Your task to perform on an android device: Add "bose soundlink mini" to the cart on target.com Image 0: 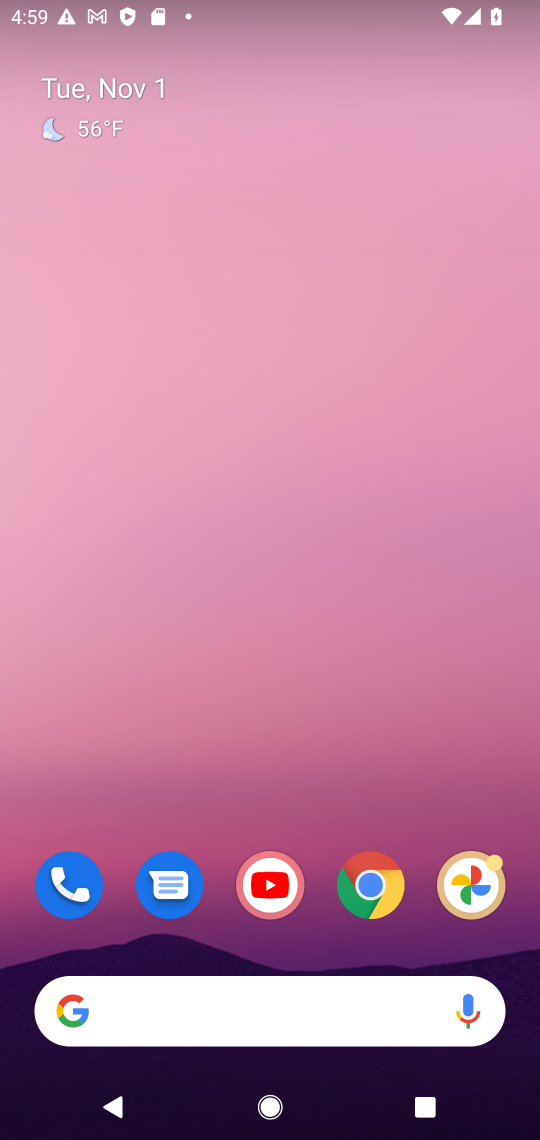
Step 0: click (369, 883)
Your task to perform on an android device: Add "bose soundlink mini" to the cart on target.com Image 1: 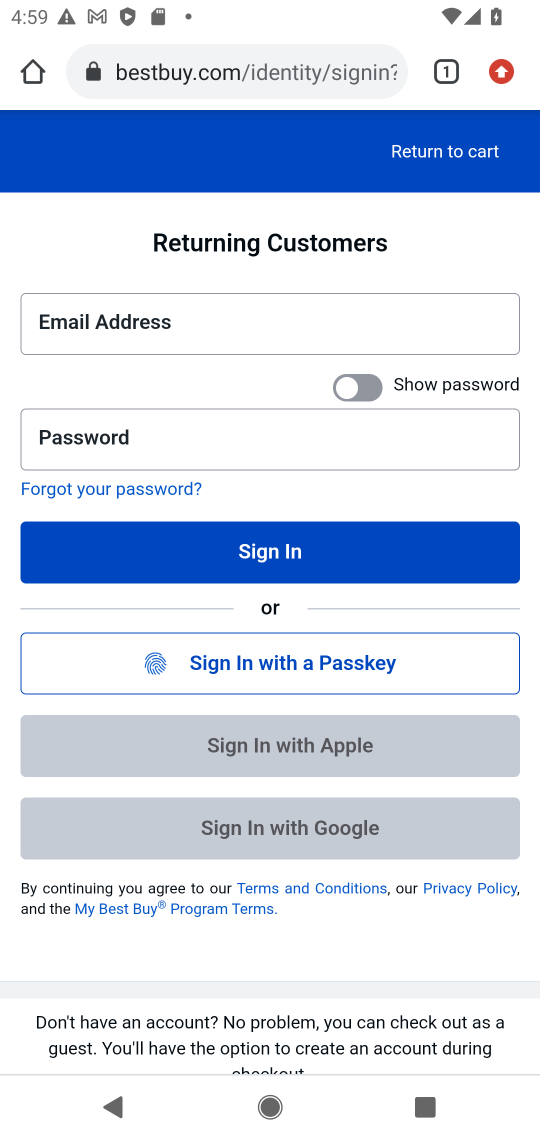
Step 1: click (219, 50)
Your task to perform on an android device: Add "bose soundlink mini" to the cart on target.com Image 2: 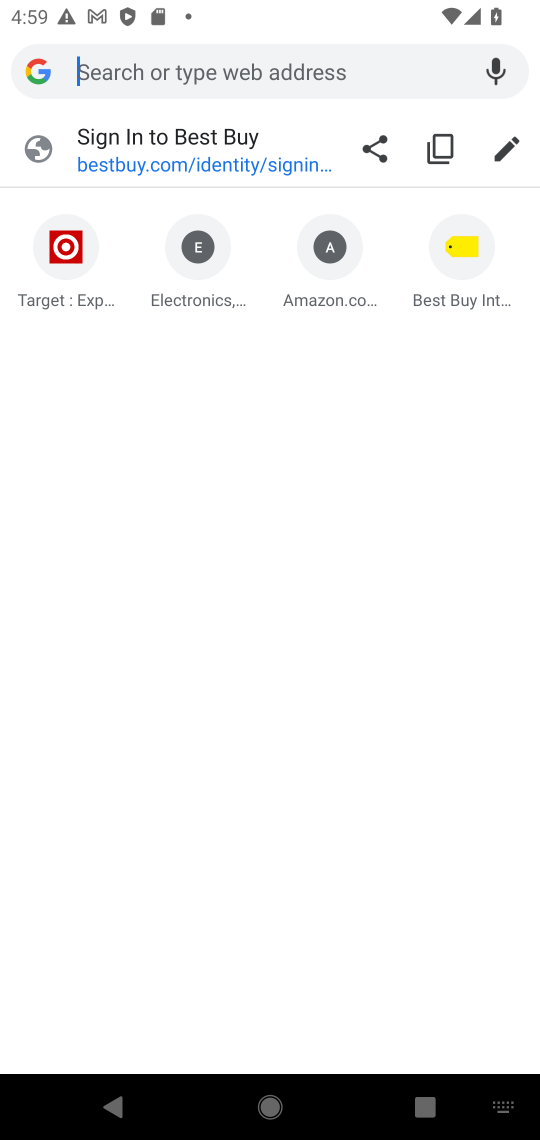
Step 2: click (215, 47)
Your task to perform on an android device: Add "bose soundlink mini" to the cart on target.com Image 3: 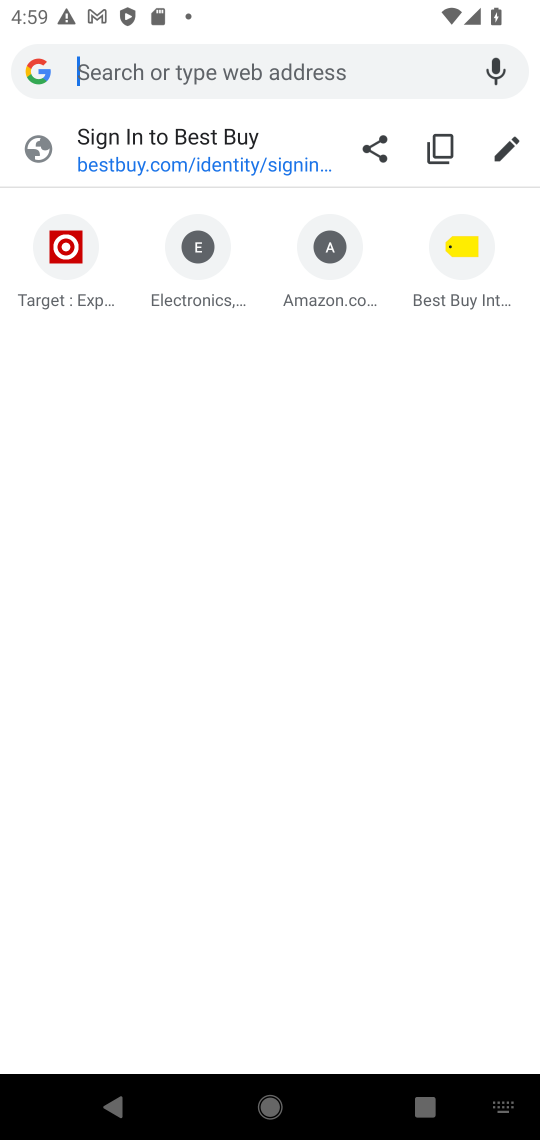
Step 3: type "target.com"
Your task to perform on an android device: Add "bose soundlink mini" to the cart on target.com Image 4: 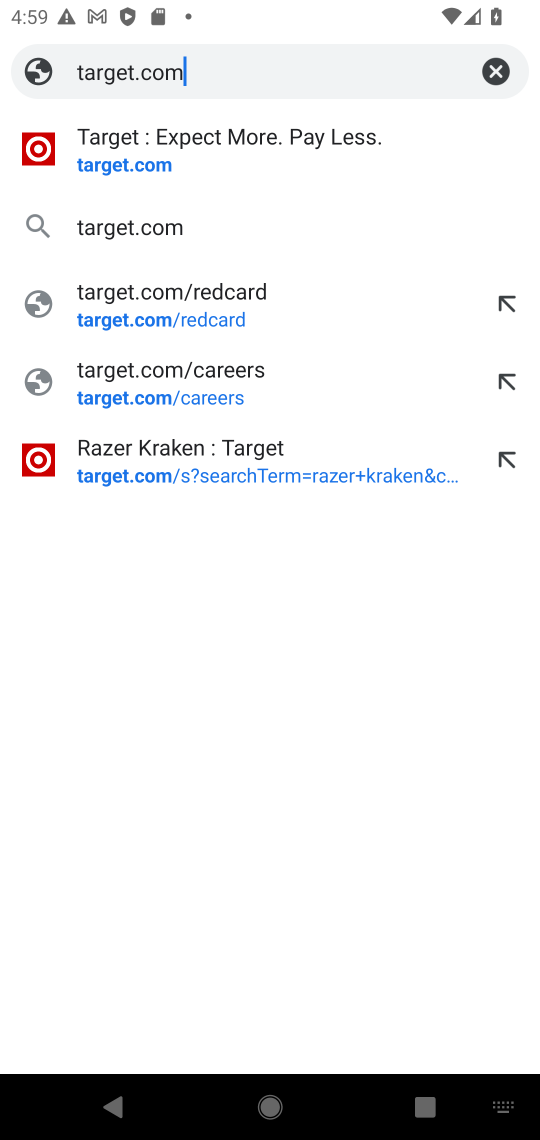
Step 4: click (96, 153)
Your task to perform on an android device: Add "bose soundlink mini" to the cart on target.com Image 5: 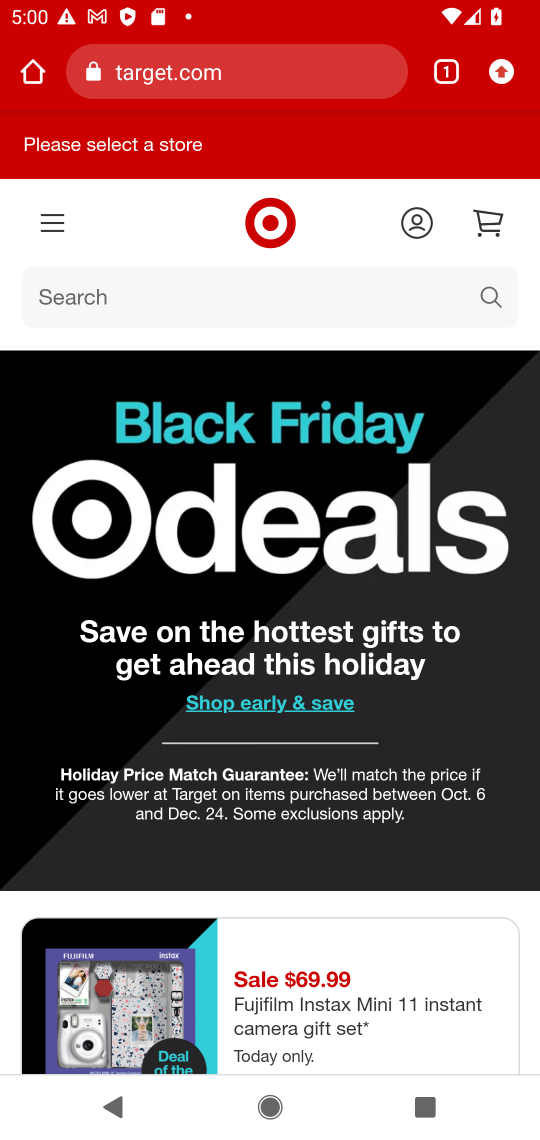
Step 5: click (136, 293)
Your task to perform on an android device: Add "bose soundlink mini" to the cart on target.com Image 6: 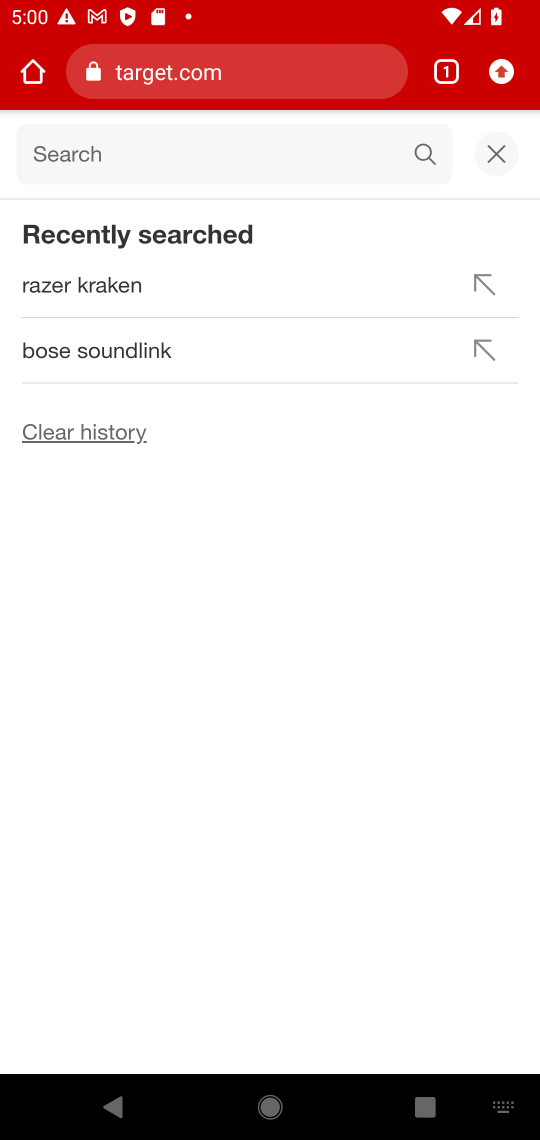
Step 6: type "bose soundlink mini"
Your task to perform on an android device: Add "bose soundlink mini" to the cart on target.com Image 7: 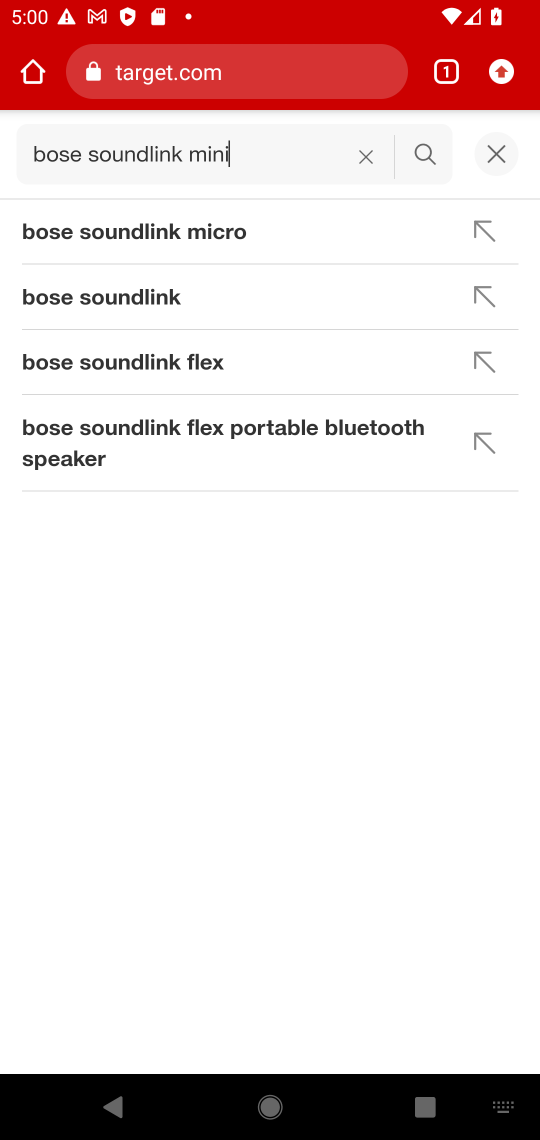
Step 7: click (122, 292)
Your task to perform on an android device: Add "bose soundlink mini" to the cart on target.com Image 8: 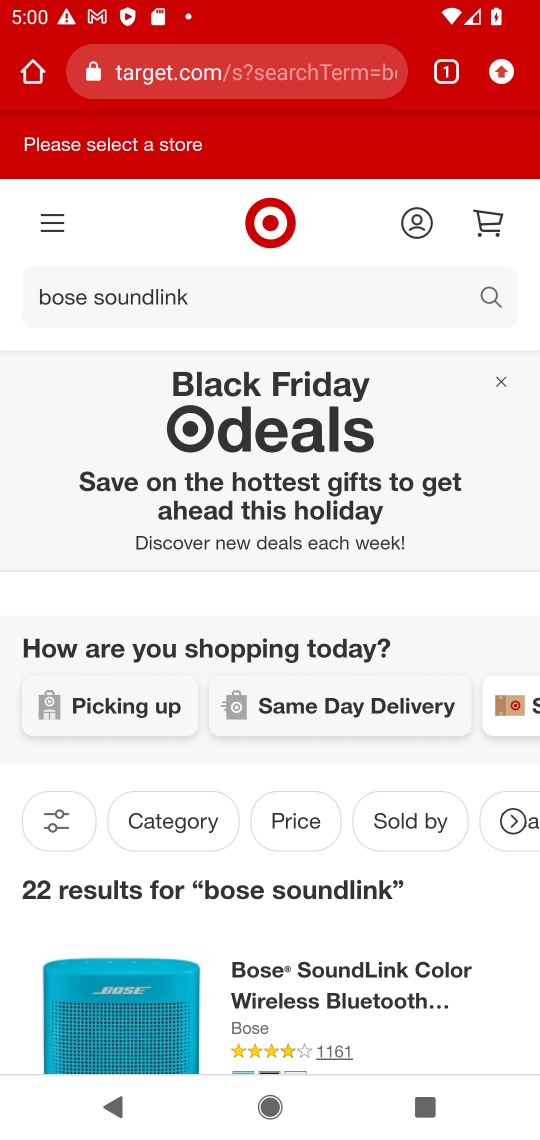
Step 8: drag from (287, 909) to (301, 379)
Your task to perform on an android device: Add "bose soundlink mini" to the cart on target.com Image 9: 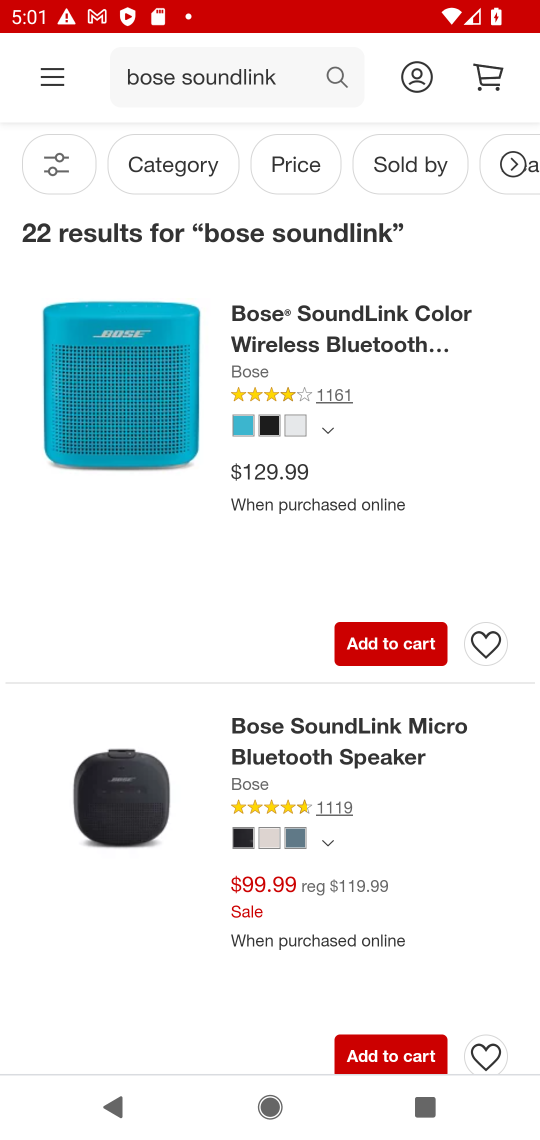
Step 9: click (334, 720)
Your task to perform on an android device: Add "bose soundlink mini" to the cart on target.com Image 10: 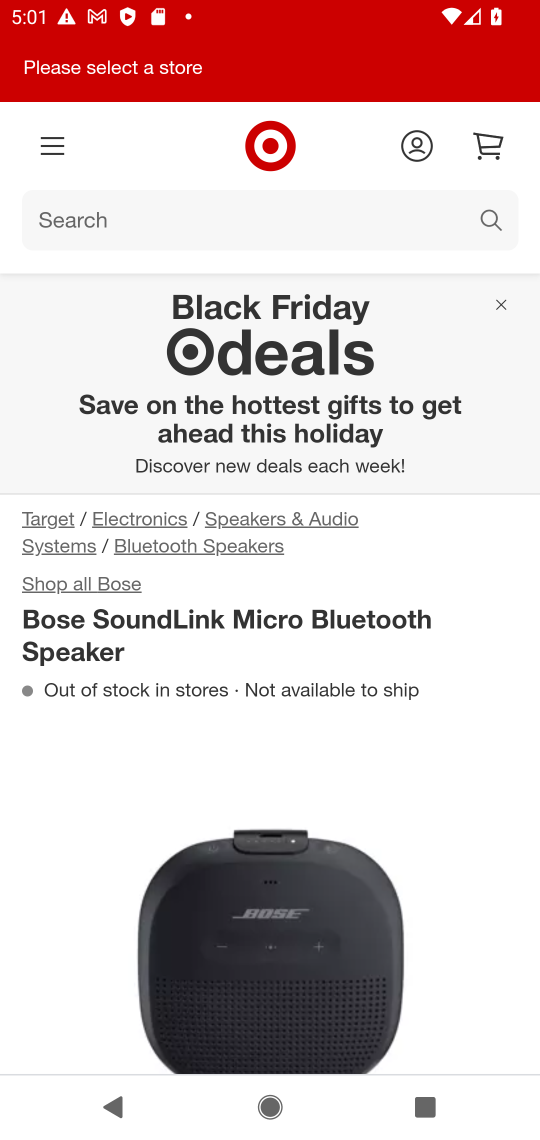
Step 10: drag from (369, 701) to (357, 282)
Your task to perform on an android device: Add "bose soundlink mini" to the cart on target.com Image 11: 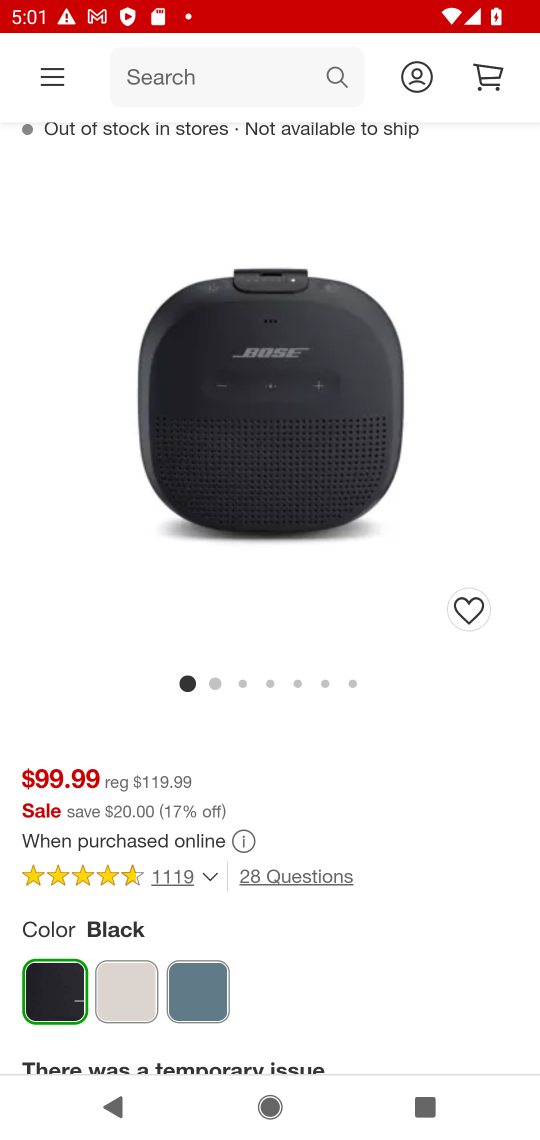
Step 11: drag from (454, 832) to (342, 252)
Your task to perform on an android device: Add "bose soundlink mini" to the cart on target.com Image 12: 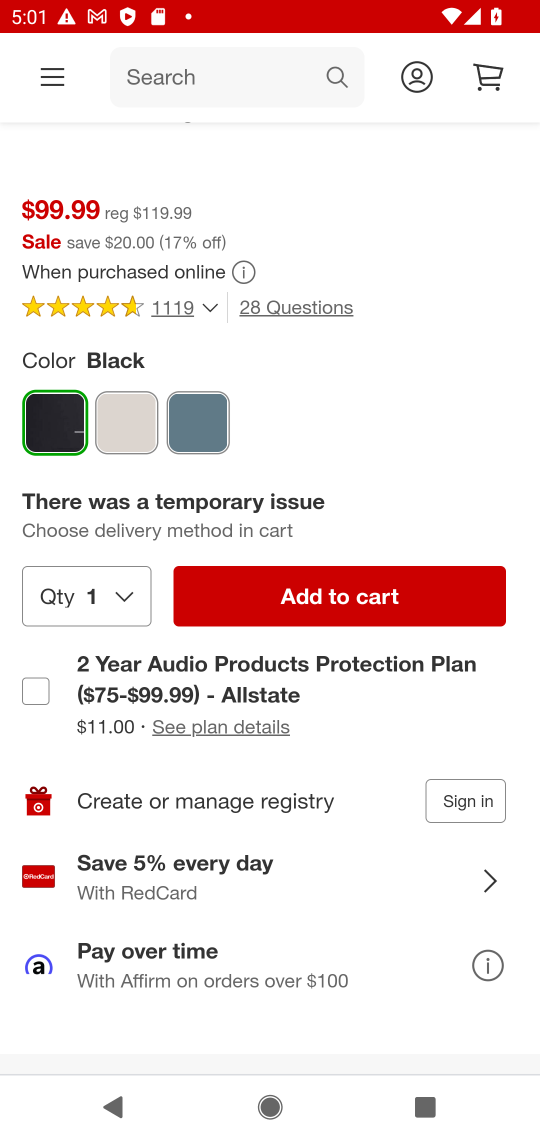
Step 12: click (358, 590)
Your task to perform on an android device: Add "bose soundlink mini" to the cart on target.com Image 13: 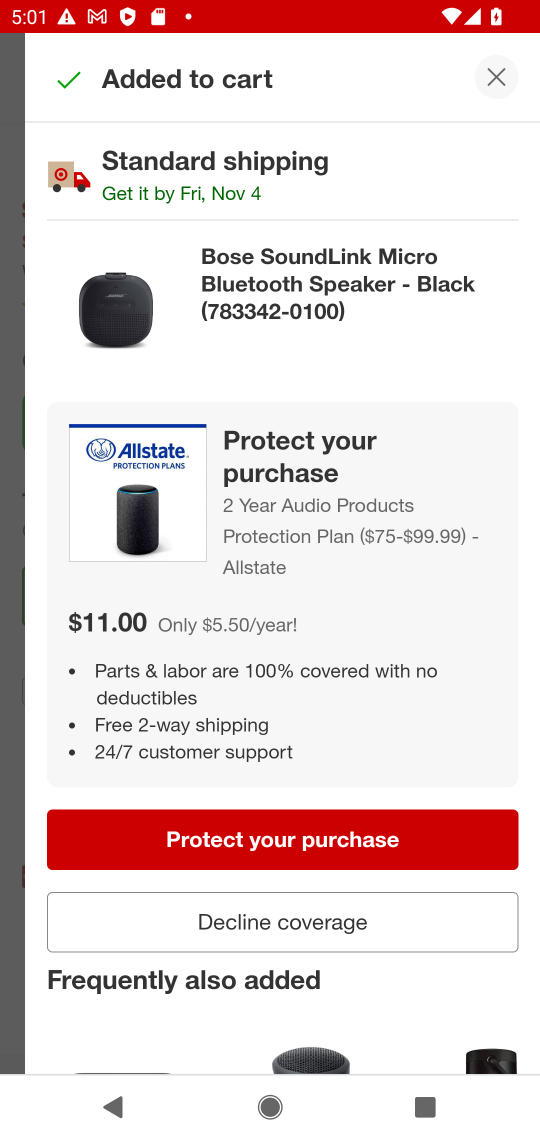
Step 13: task complete